Your task to perform on an android device: remove spam from my inbox in the gmail app Image 0: 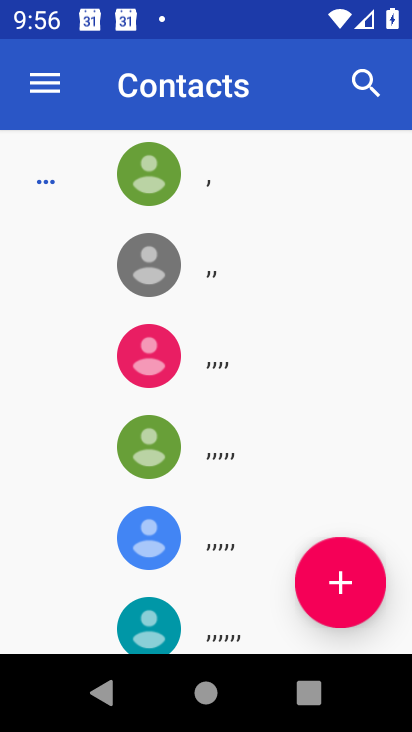
Step 0: press back button
Your task to perform on an android device: remove spam from my inbox in the gmail app Image 1: 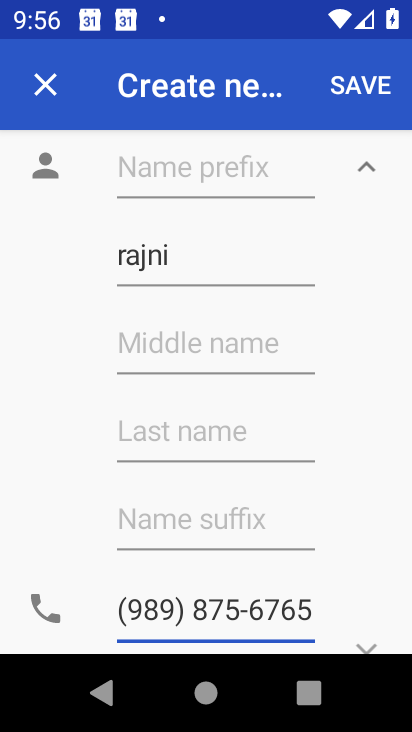
Step 1: press home button
Your task to perform on an android device: remove spam from my inbox in the gmail app Image 2: 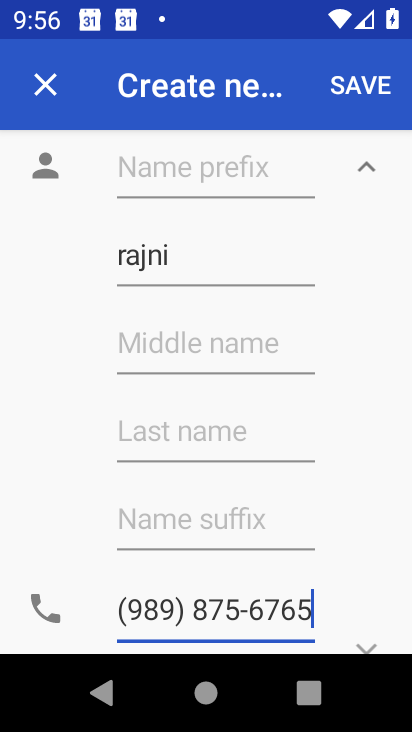
Step 2: press home button
Your task to perform on an android device: remove spam from my inbox in the gmail app Image 3: 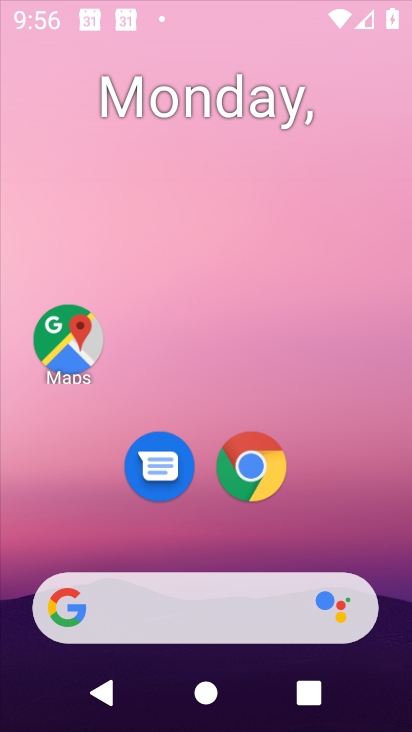
Step 3: press home button
Your task to perform on an android device: remove spam from my inbox in the gmail app Image 4: 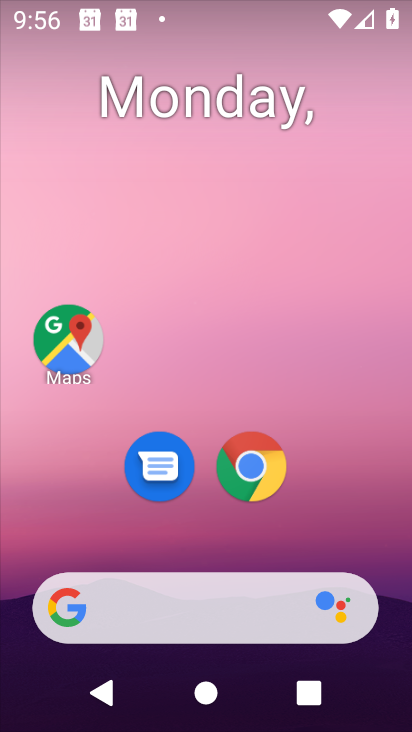
Step 4: drag from (354, 553) to (134, 69)
Your task to perform on an android device: remove spam from my inbox in the gmail app Image 5: 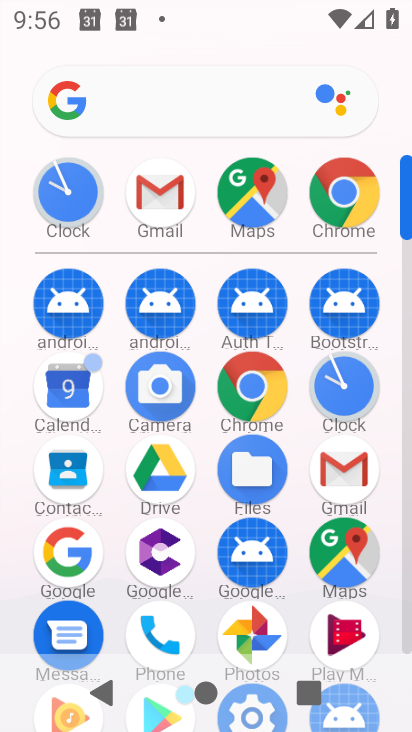
Step 5: click (341, 467)
Your task to perform on an android device: remove spam from my inbox in the gmail app Image 6: 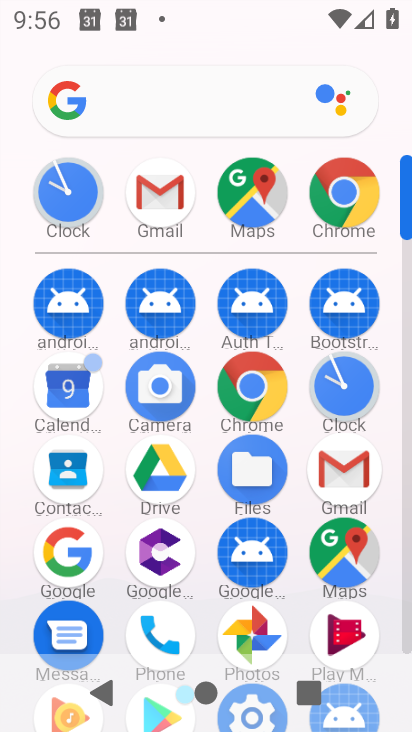
Step 6: click (341, 467)
Your task to perform on an android device: remove spam from my inbox in the gmail app Image 7: 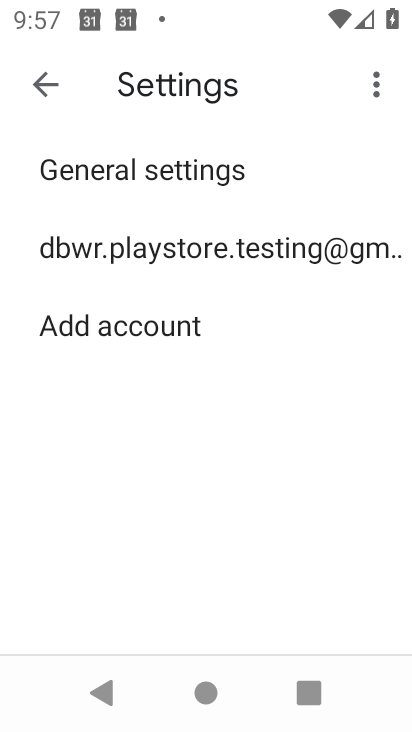
Step 7: task complete